Your task to perform on an android device: toggle translation in the chrome app Image 0: 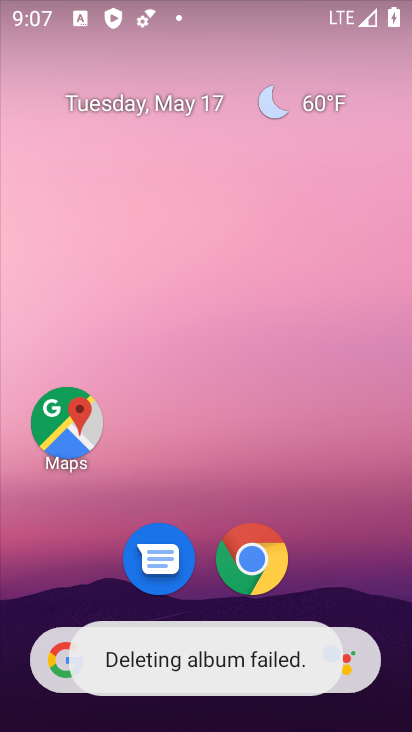
Step 0: click (239, 559)
Your task to perform on an android device: toggle translation in the chrome app Image 1: 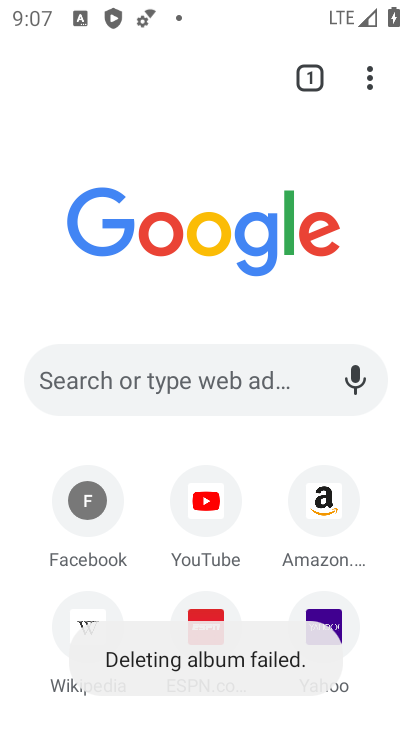
Step 1: drag from (367, 85) to (54, 650)
Your task to perform on an android device: toggle translation in the chrome app Image 2: 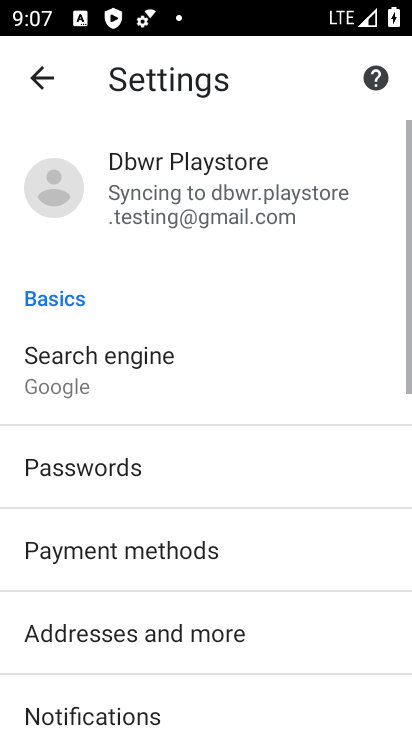
Step 2: drag from (163, 627) to (222, 321)
Your task to perform on an android device: toggle translation in the chrome app Image 3: 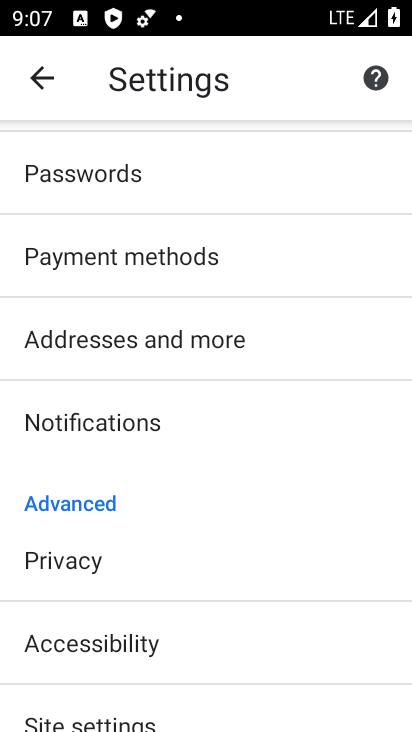
Step 3: drag from (157, 616) to (199, 367)
Your task to perform on an android device: toggle translation in the chrome app Image 4: 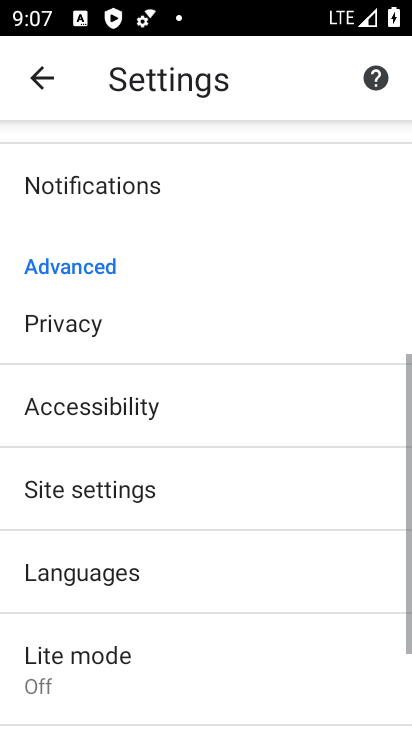
Step 4: click (110, 574)
Your task to perform on an android device: toggle translation in the chrome app Image 5: 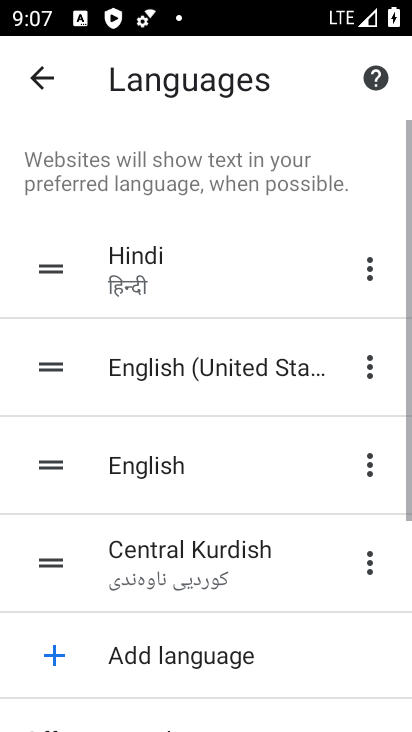
Step 5: drag from (200, 626) to (259, 288)
Your task to perform on an android device: toggle translation in the chrome app Image 6: 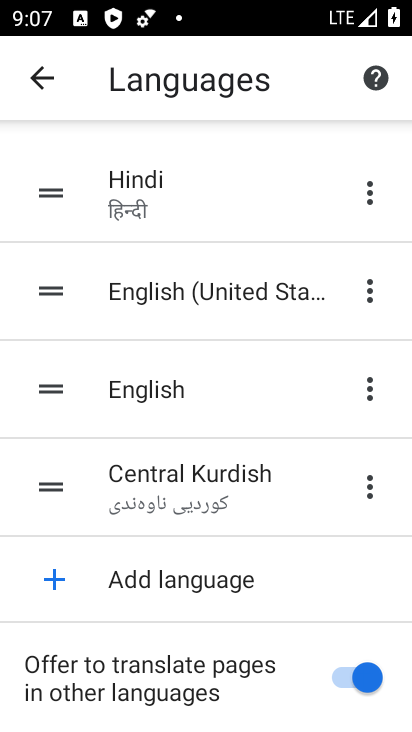
Step 6: click (347, 670)
Your task to perform on an android device: toggle translation in the chrome app Image 7: 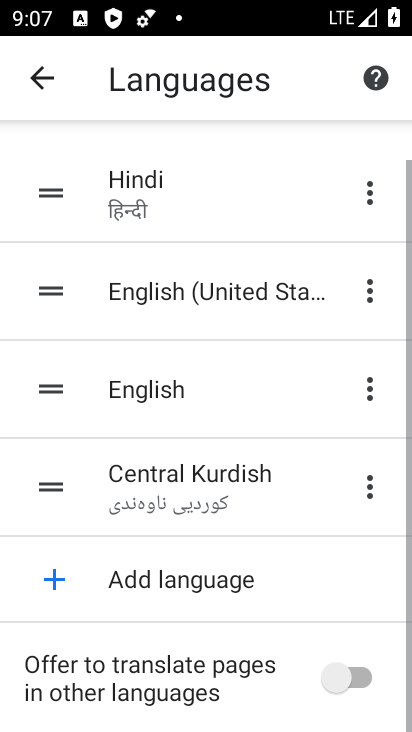
Step 7: task complete